Your task to perform on an android device: Search for hotels in San Diego Image 0: 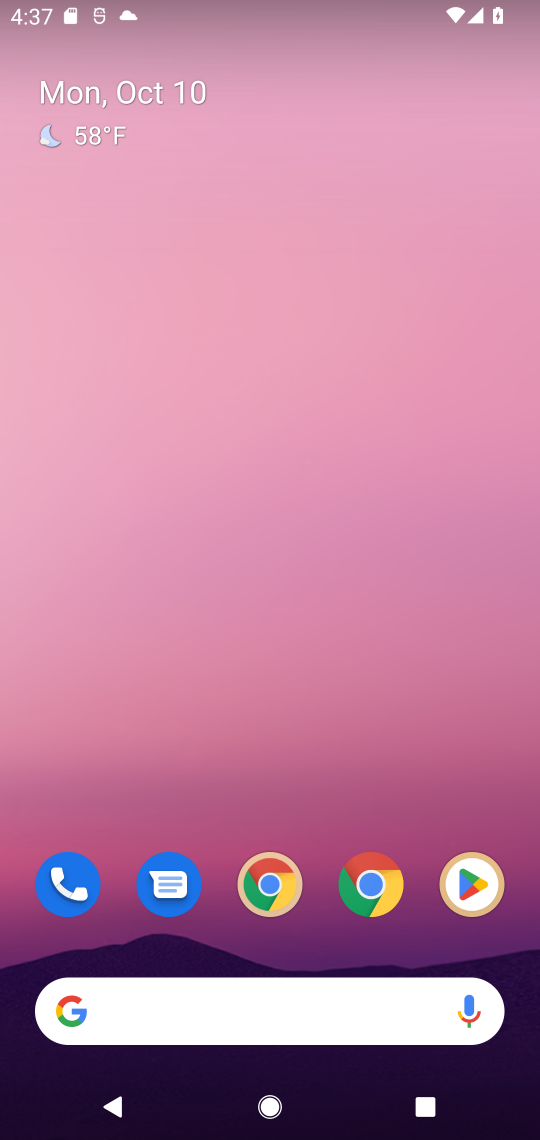
Step 0: click (384, 884)
Your task to perform on an android device: Search for hotels in San Diego Image 1: 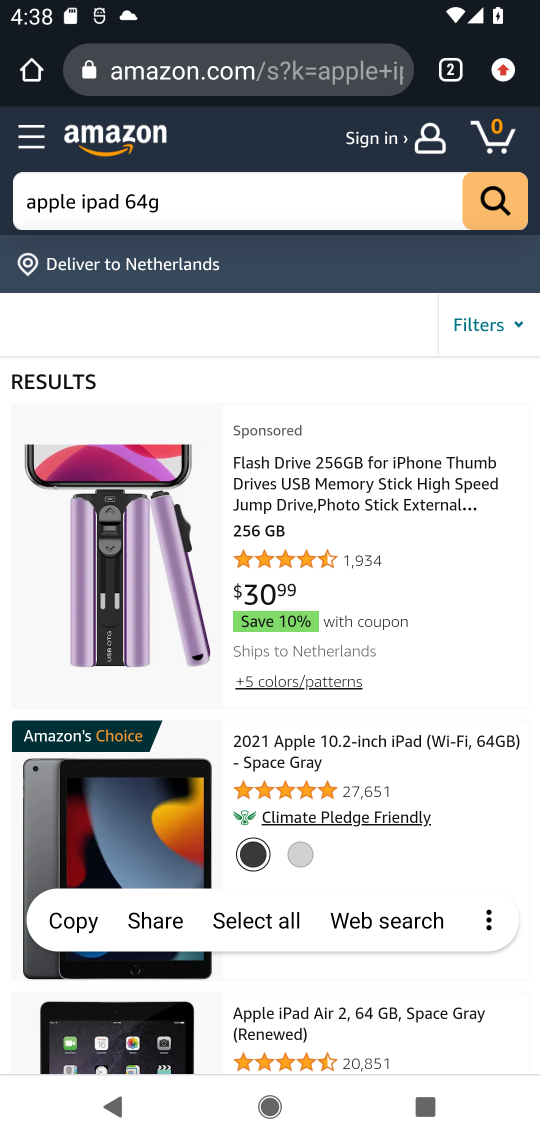
Step 1: click (301, 74)
Your task to perform on an android device: Search for hotels in San Diego Image 2: 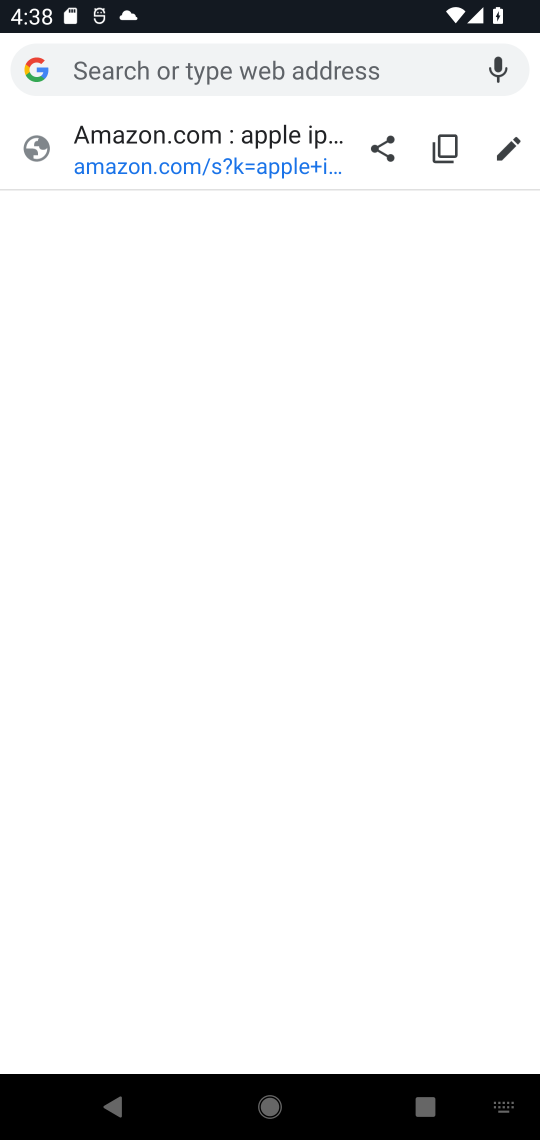
Step 2: type "hotels in san diego"
Your task to perform on an android device: Search for hotels in San Diego Image 3: 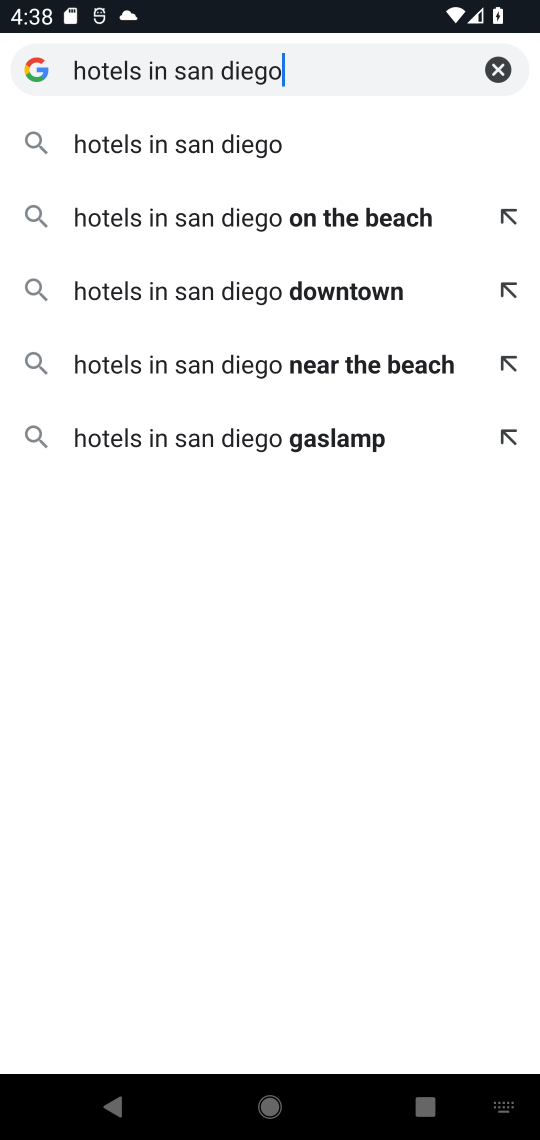
Step 3: click (185, 162)
Your task to perform on an android device: Search for hotels in San Diego Image 4: 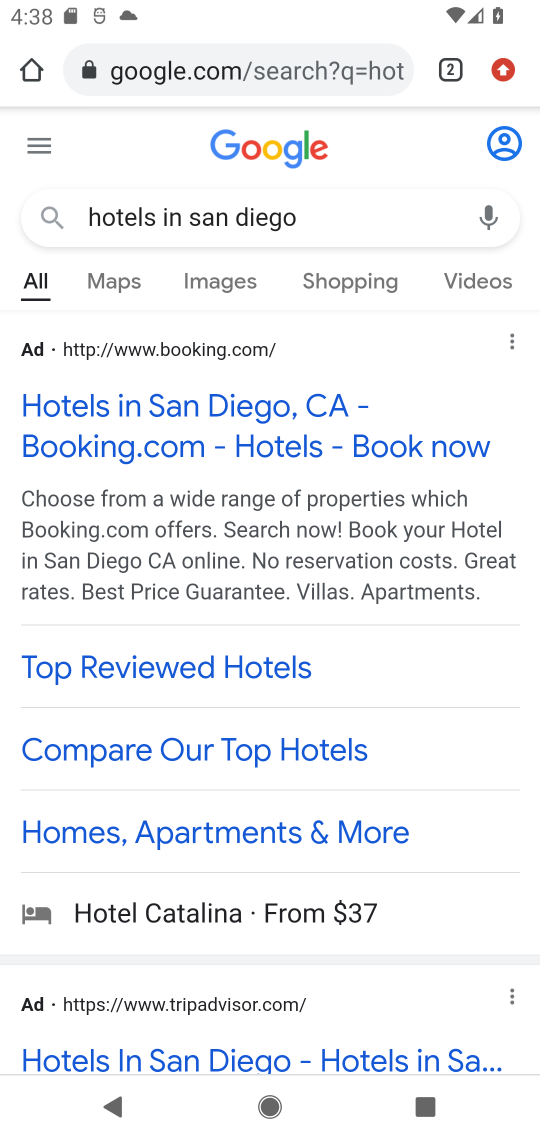
Step 4: click (221, 416)
Your task to perform on an android device: Search for hotels in San Diego Image 5: 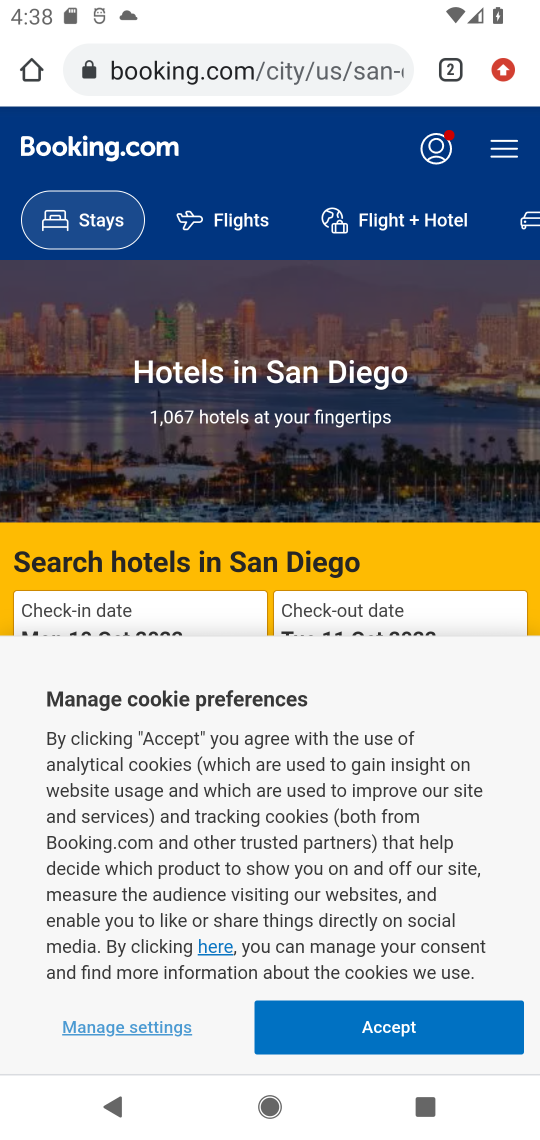
Step 5: task complete